Your task to perform on an android device: Open display settings Image 0: 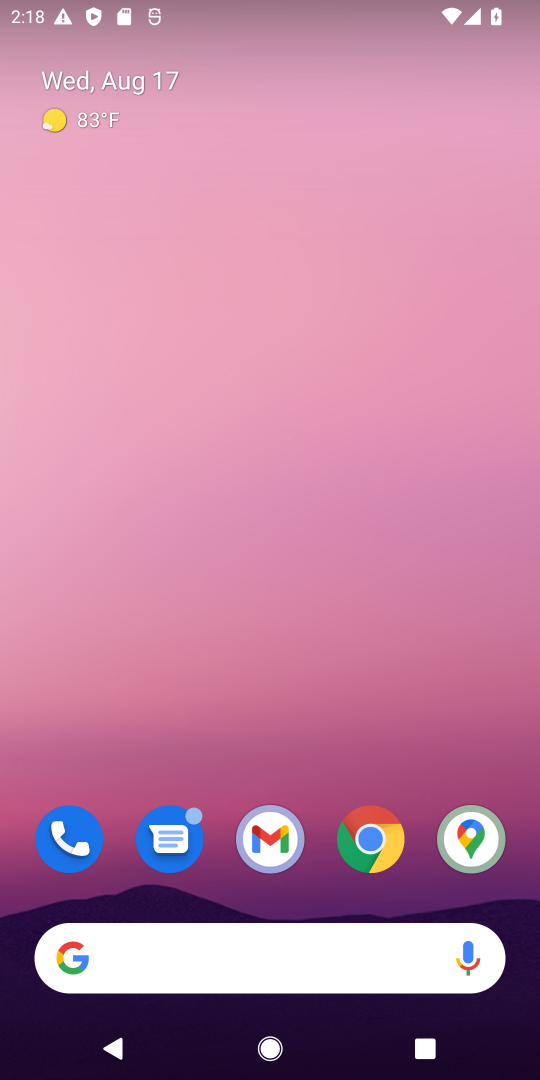
Step 0: drag from (299, 741) to (222, 163)
Your task to perform on an android device: Open display settings Image 1: 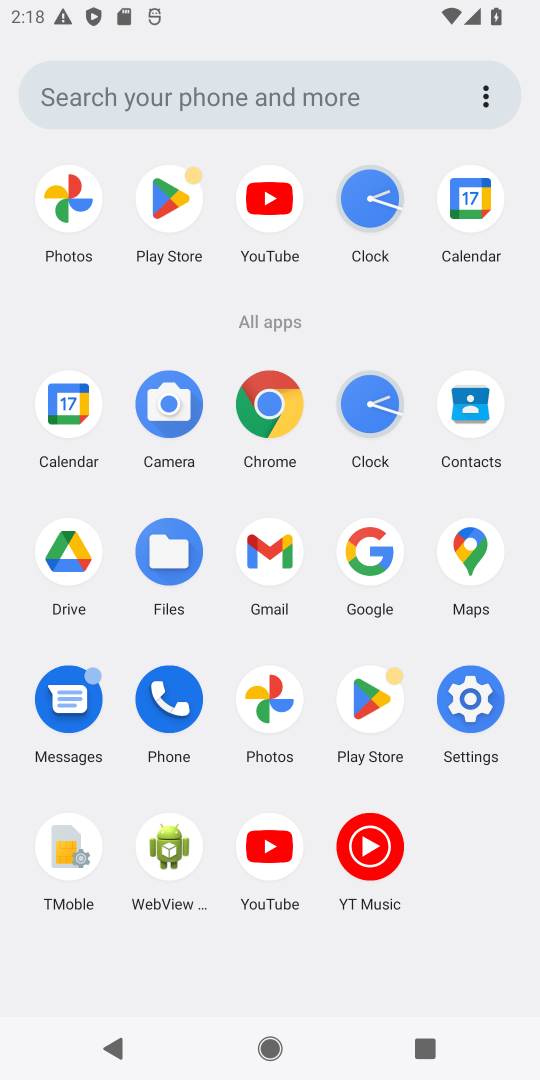
Step 1: click (469, 704)
Your task to perform on an android device: Open display settings Image 2: 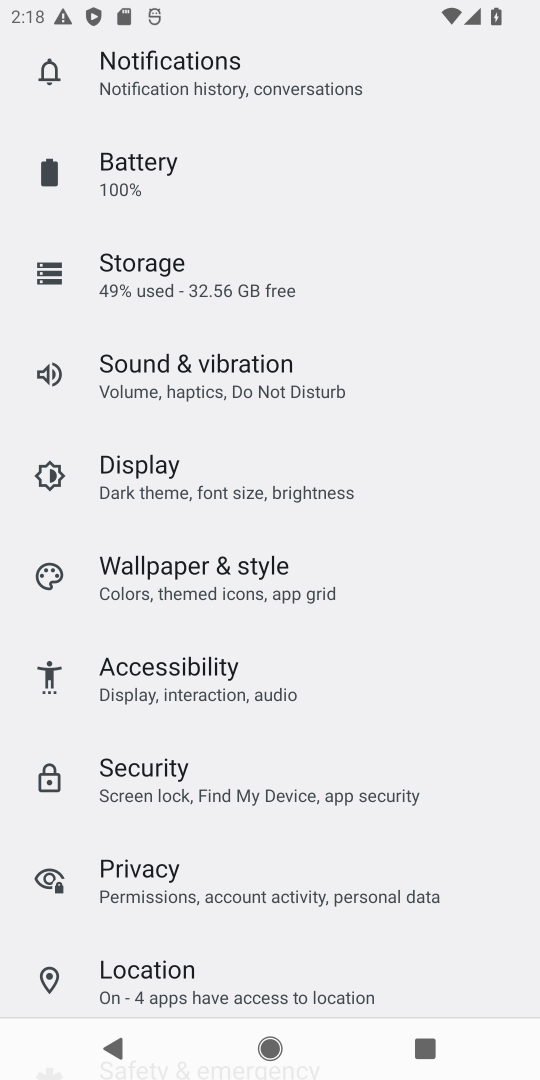
Step 2: click (139, 471)
Your task to perform on an android device: Open display settings Image 3: 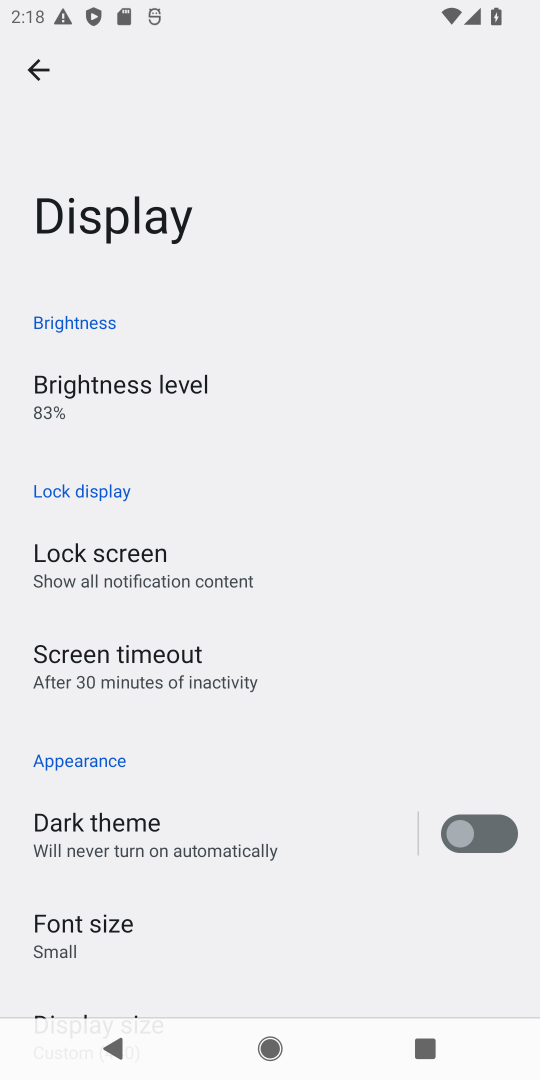
Step 3: task complete